Your task to perform on an android device: set the timer Image 0: 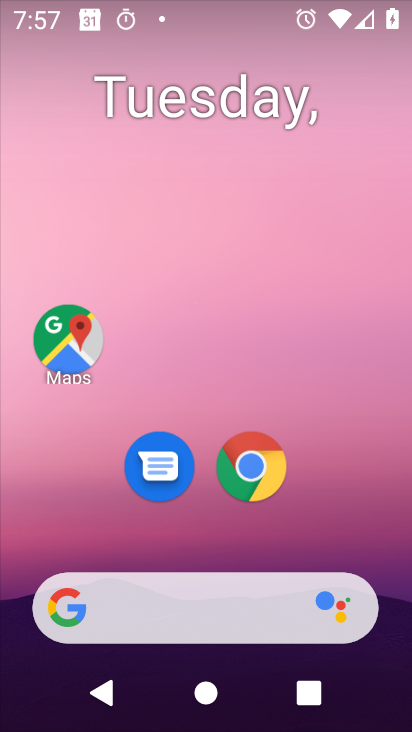
Step 0: drag from (31, 545) to (186, 262)
Your task to perform on an android device: set the timer Image 1: 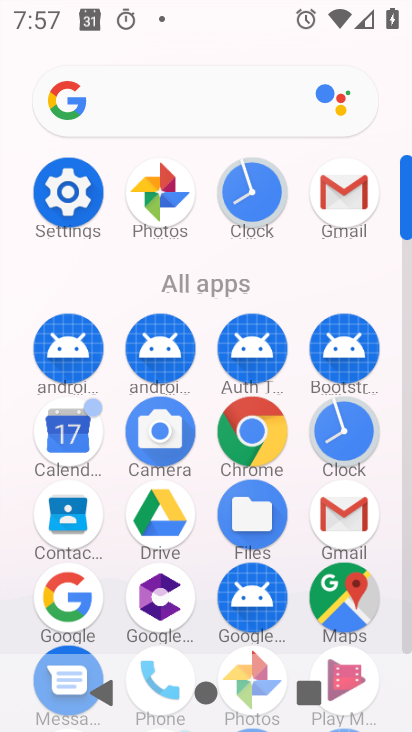
Step 1: click (342, 535)
Your task to perform on an android device: set the timer Image 2: 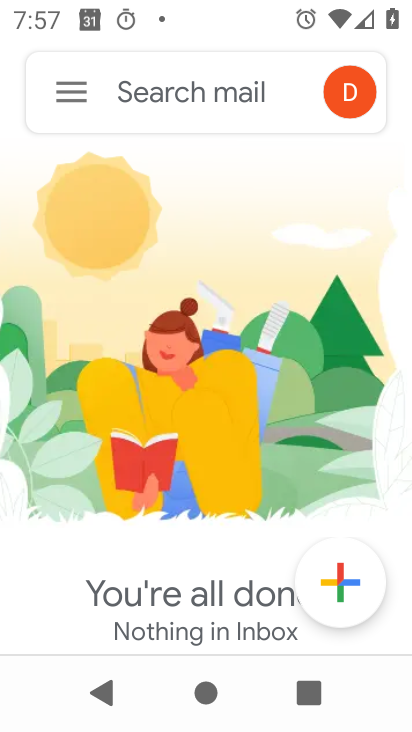
Step 2: click (360, 417)
Your task to perform on an android device: set the timer Image 3: 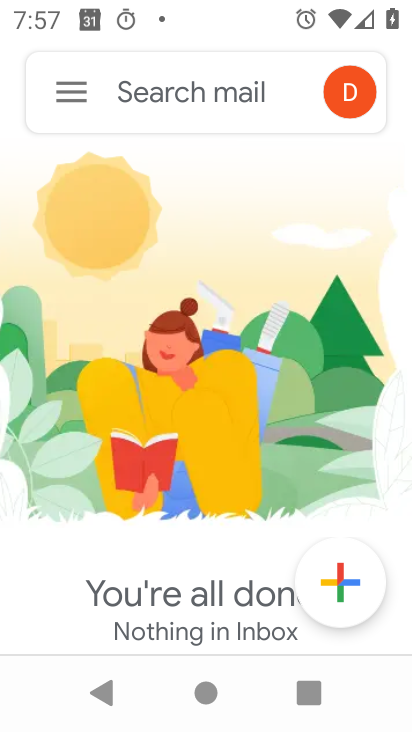
Step 3: press home button
Your task to perform on an android device: set the timer Image 4: 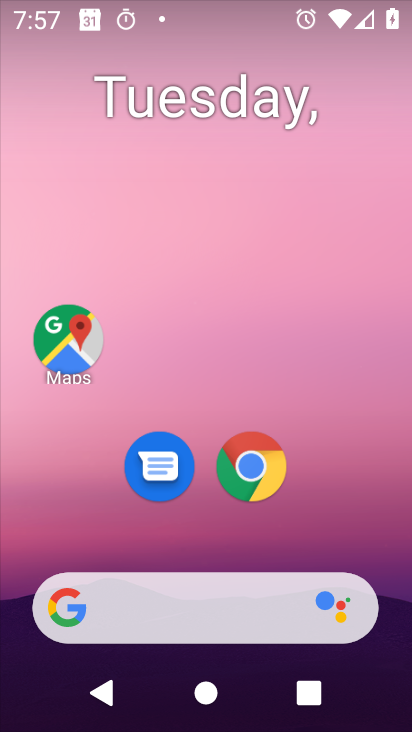
Step 4: drag from (39, 517) to (267, 137)
Your task to perform on an android device: set the timer Image 5: 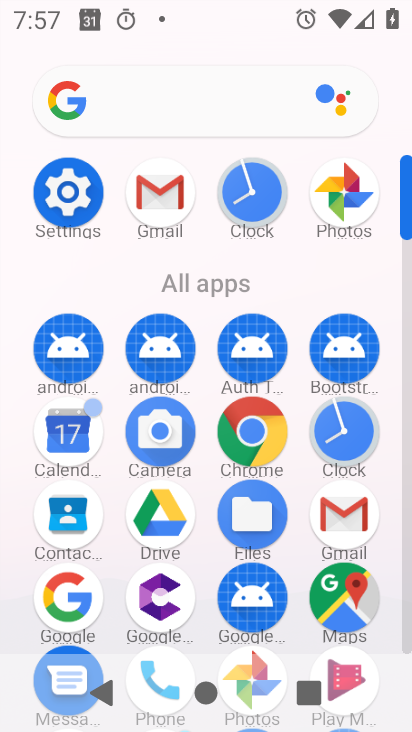
Step 5: click (355, 438)
Your task to perform on an android device: set the timer Image 6: 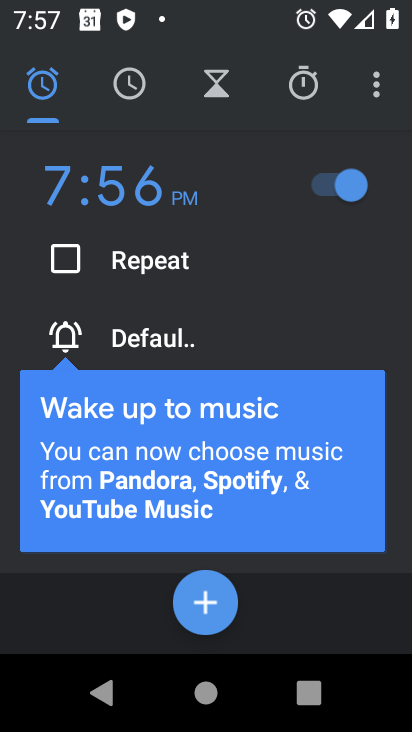
Step 6: click (296, 83)
Your task to perform on an android device: set the timer Image 7: 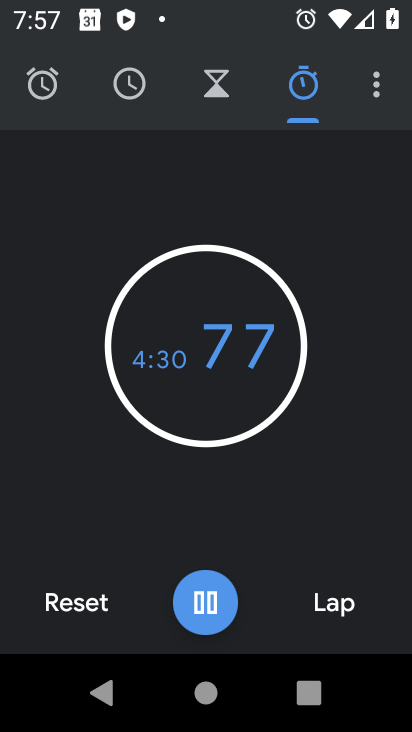
Step 7: click (225, 85)
Your task to perform on an android device: set the timer Image 8: 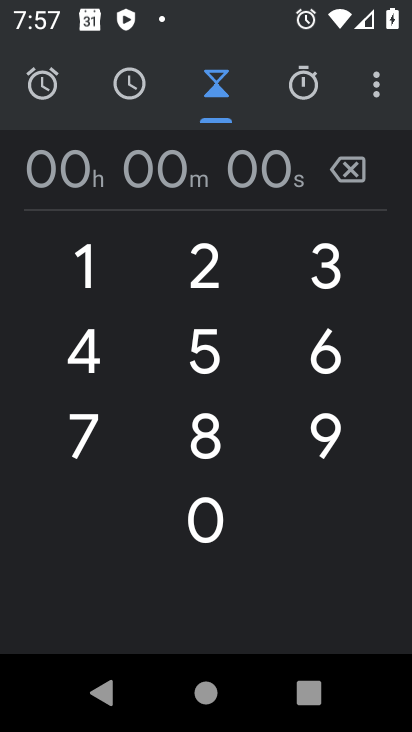
Step 8: click (84, 250)
Your task to perform on an android device: set the timer Image 9: 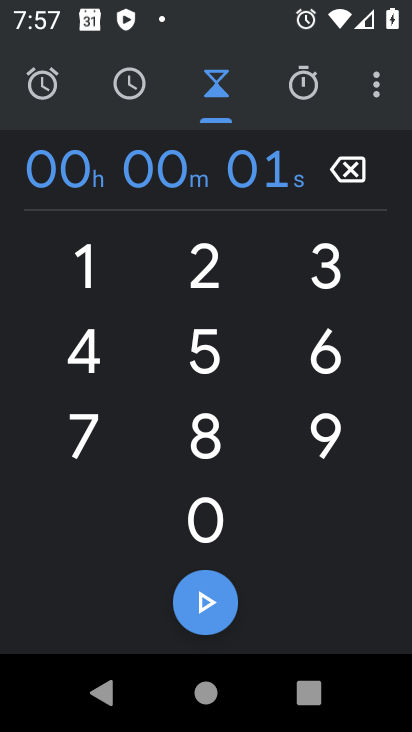
Step 9: click (207, 519)
Your task to perform on an android device: set the timer Image 10: 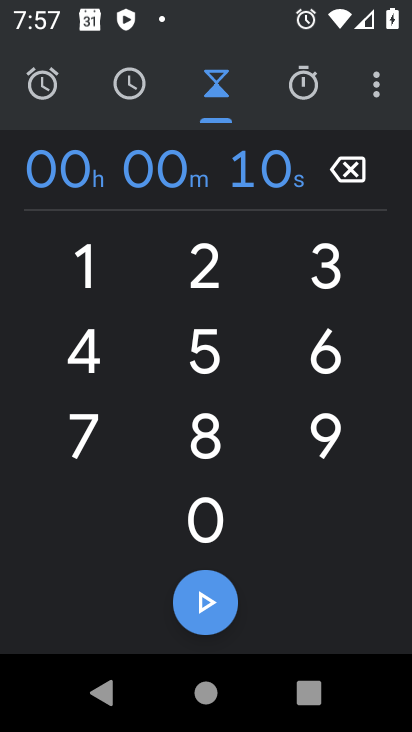
Step 10: click (209, 516)
Your task to perform on an android device: set the timer Image 11: 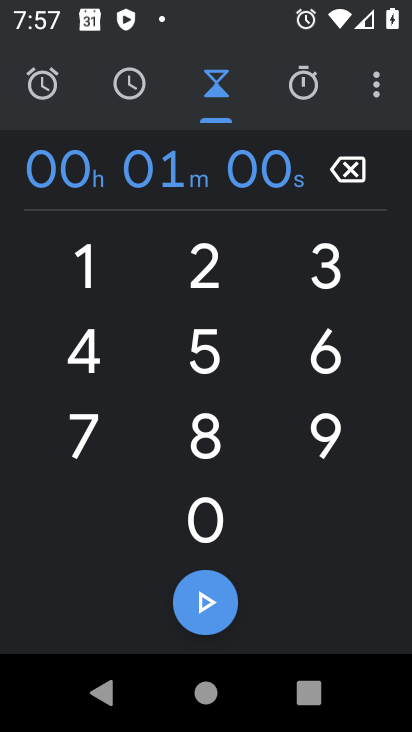
Step 11: click (210, 516)
Your task to perform on an android device: set the timer Image 12: 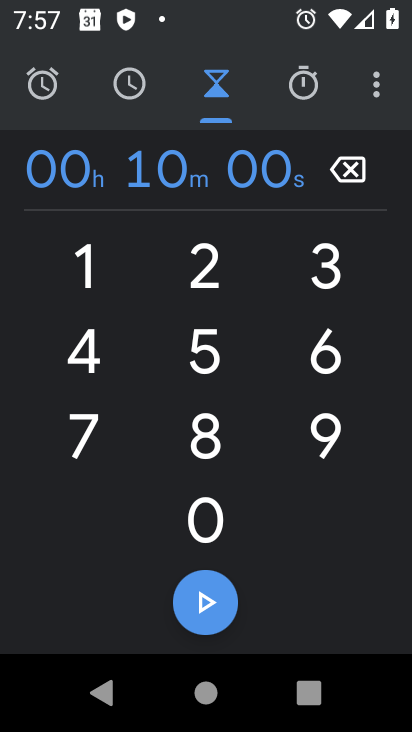
Step 12: click (212, 514)
Your task to perform on an android device: set the timer Image 13: 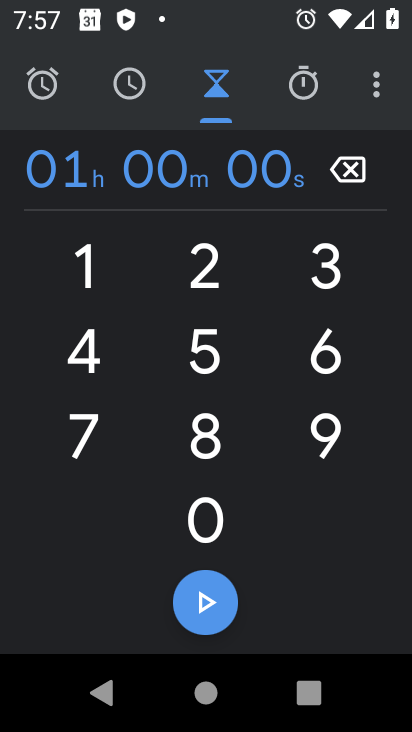
Step 13: task complete